Your task to perform on an android device: Open Google Image 0: 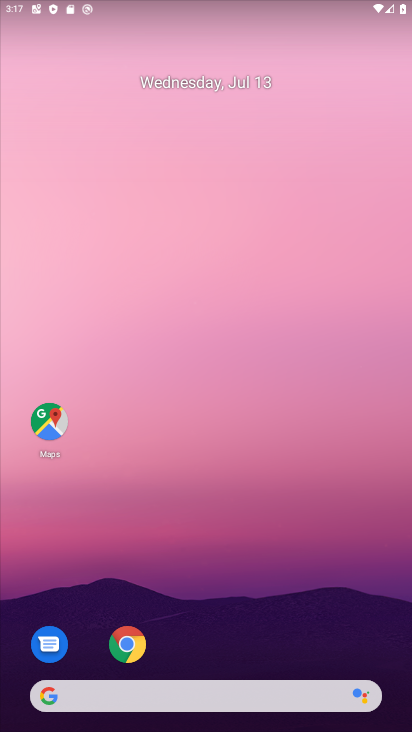
Step 0: drag from (180, 653) to (305, 97)
Your task to perform on an android device: Open Google Image 1: 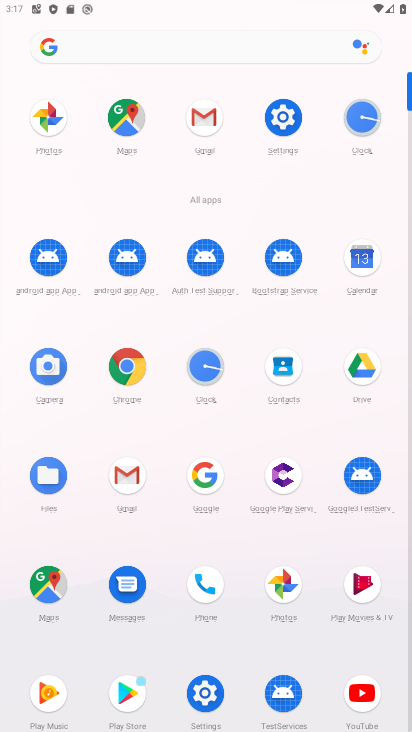
Step 1: click (207, 469)
Your task to perform on an android device: Open Google Image 2: 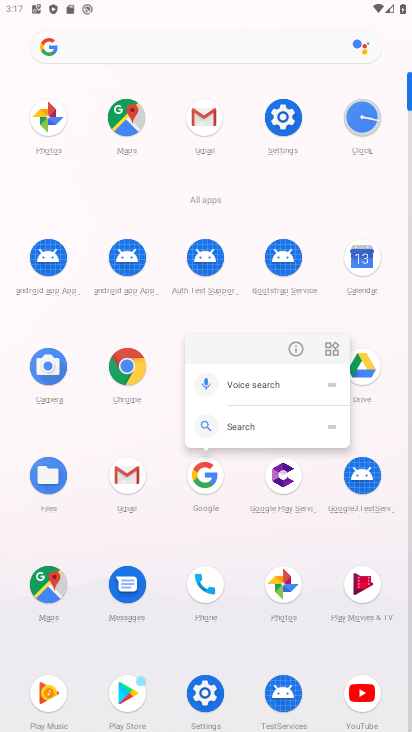
Step 2: click (292, 356)
Your task to perform on an android device: Open Google Image 3: 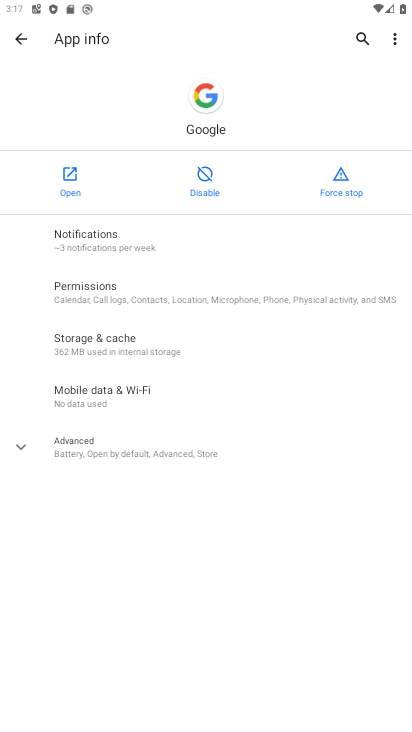
Step 3: click (70, 169)
Your task to perform on an android device: Open Google Image 4: 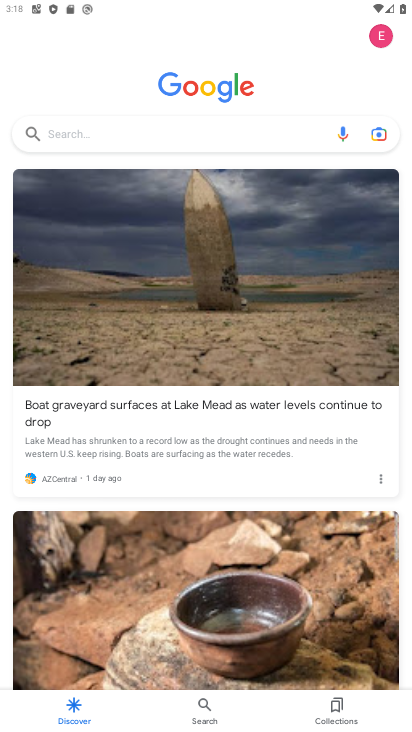
Step 4: task complete